Your task to perform on an android device: delete the emails in spam in the gmail app Image 0: 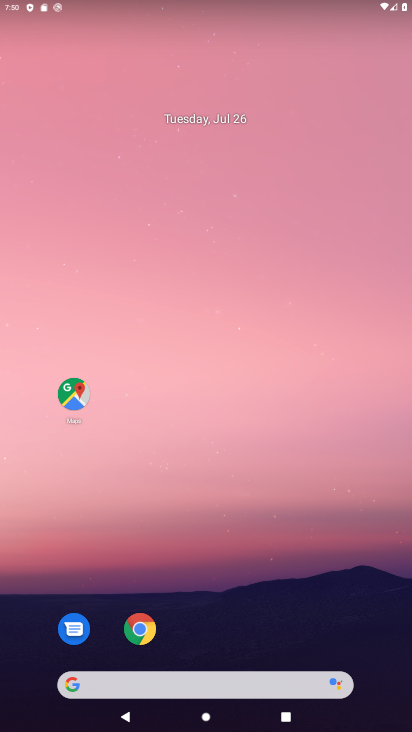
Step 0: press home button
Your task to perform on an android device: delete the emails in spam in the gmail app Image 1: 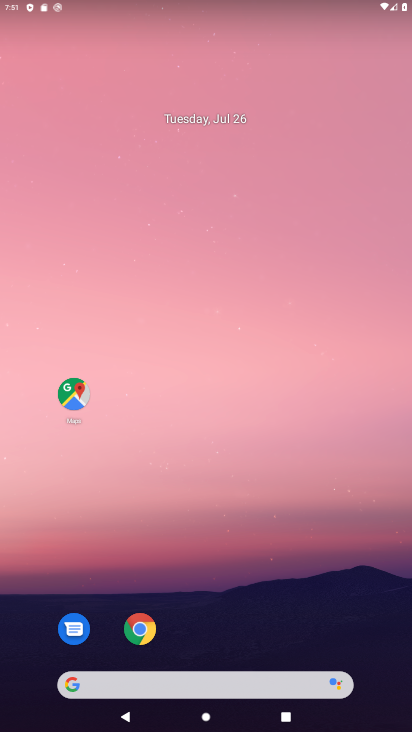
Step 1: drag from (207, 644) to (230, 115)
Your task to perform on an android device: delete the emails in spam in the gmail app Image 2: 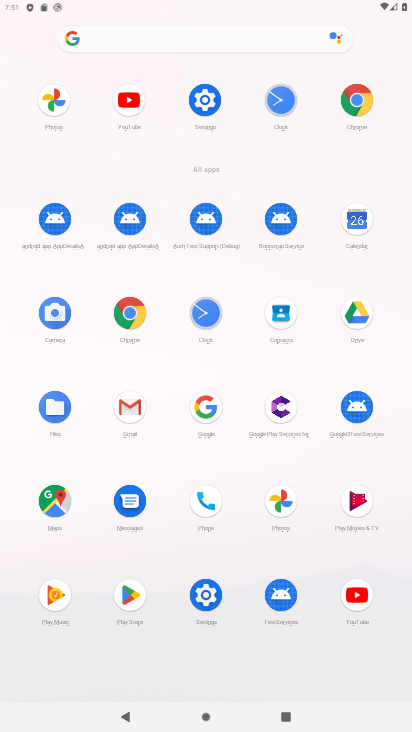
Step 2: click (129, 402)
Your task to perform on an android device: delete the emails in spam in the gmail app Image 3: 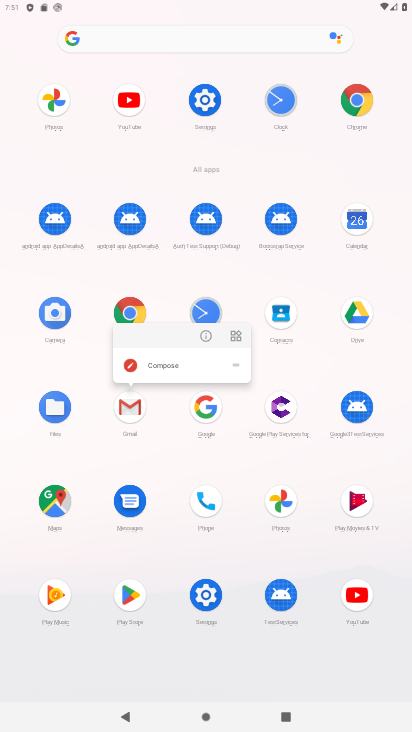
Step 3: click (129, 402)
Your task to perform on an android device: delete the emails in spam in the gmail app Image 4: 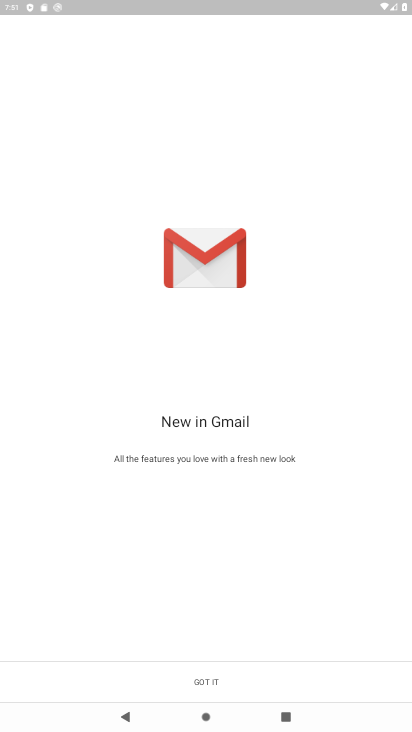
Step 4: click (208, 680)
Your task to perform on an android device: delete the emails in spam in the gmail app Image 5: 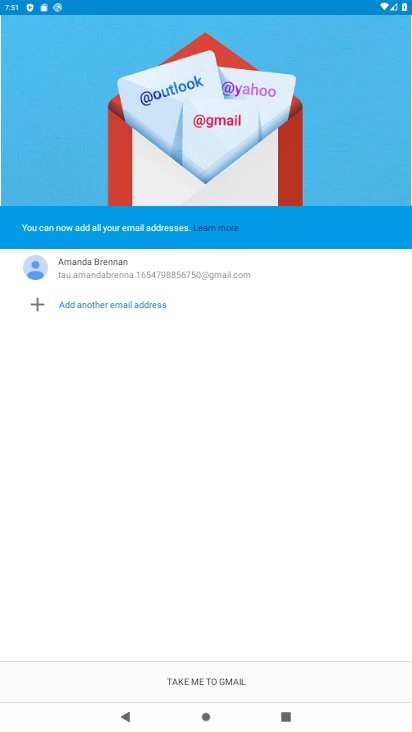
Step 5: click (208, 680)
Your task to perform on an android device: delete the emails in spam in the gmail app Image 6: 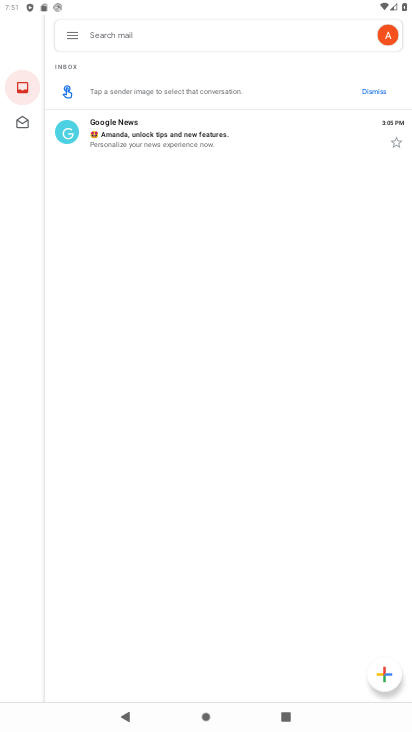
Step 6: click (68, 33)
Your task to perform on an android device: delete the emails in spam in the gmail app Image 7: 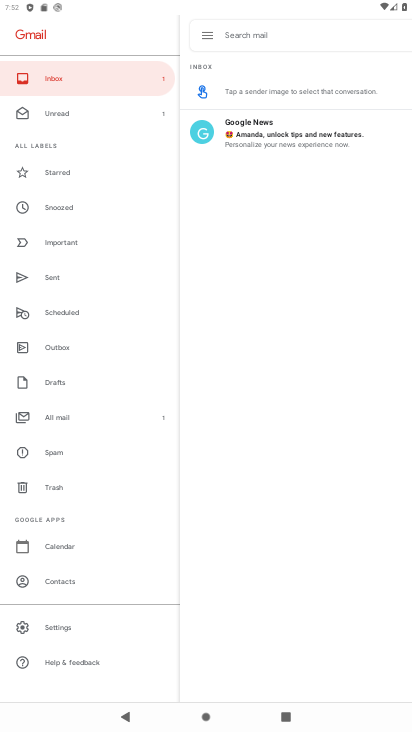
Step 7: click (47, 444)
Your task to perform on an android device: delete the emails in spam in the gmail app Image 8: 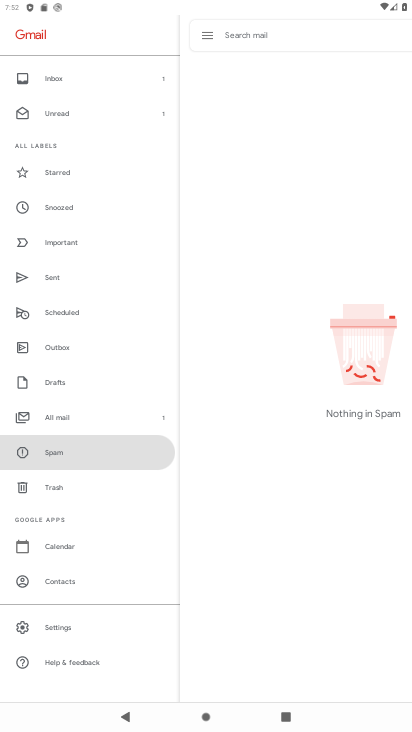
Step 8: task complete